Your task to perform on an android device: Open wifi settings Image 0: 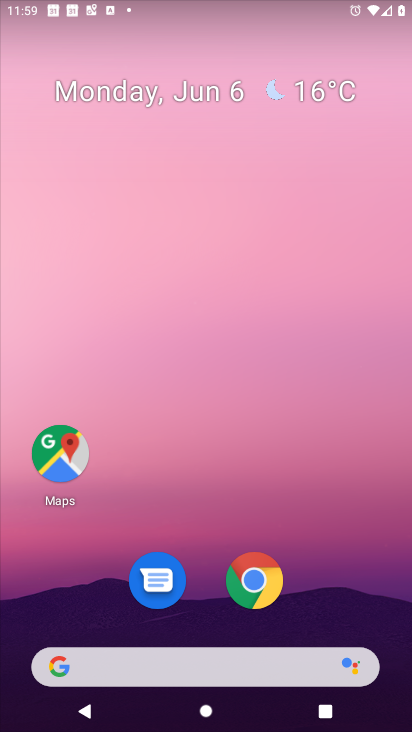
Step 0: drag from (370, 587) to (409, 130)
Your task to perform on an android device: Open wifi settings Image 1: 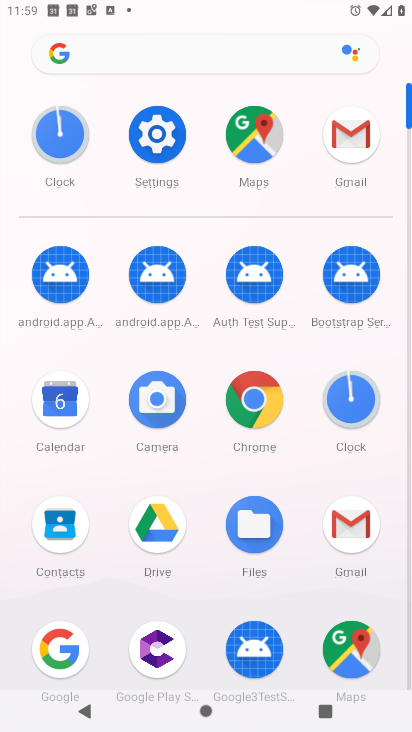
Step 1: click (153, 136)
Your task to perform on an android device: Open wifi settings Image 2: 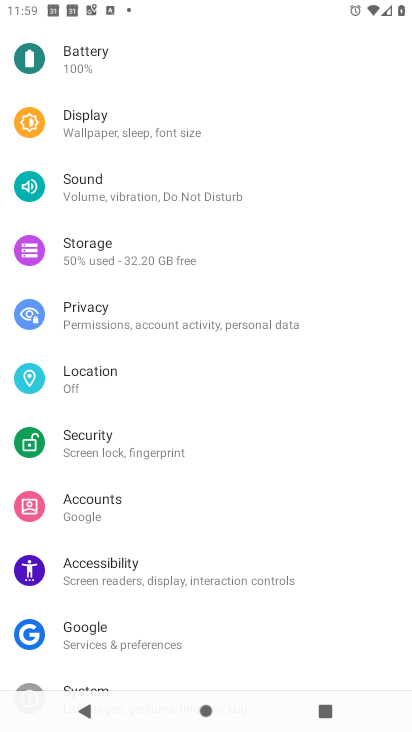
Step 2: drag from (149, 207) to (56, 664)
Your task to perform on an android device: Open wifi settings Image 3: 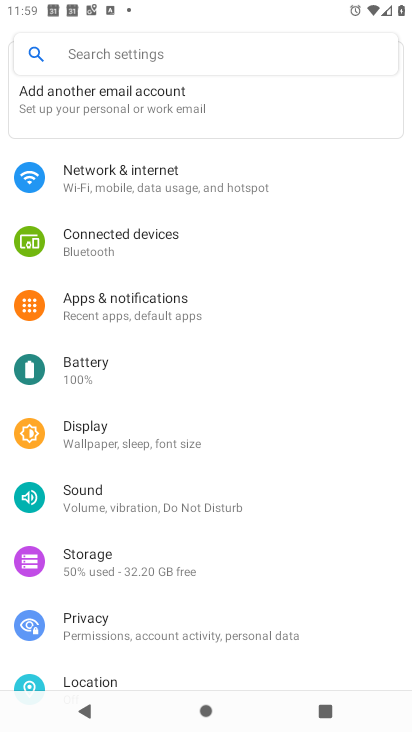
Step 3: drag from (215, 207) to (113, 676)
Your task to perform on an android device: Open wifi settings Image 4: 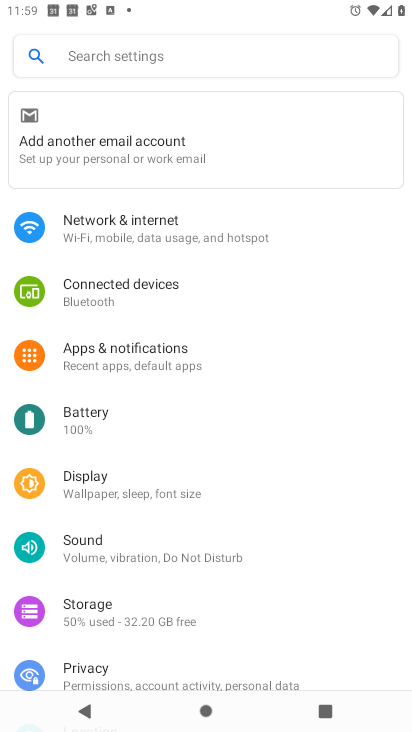
Step 4: click (118, 233)
Your task to perform on an android device: Open wifi settings Image 5: 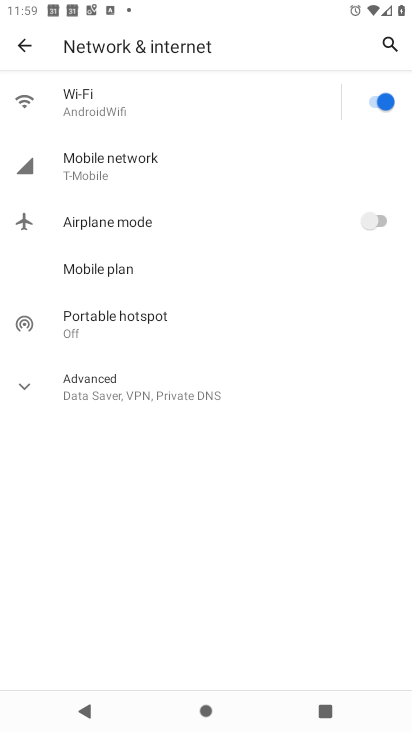
Step 5: click (108, 112)
Your task to perform on an android device: Open wifi settings Image 6: 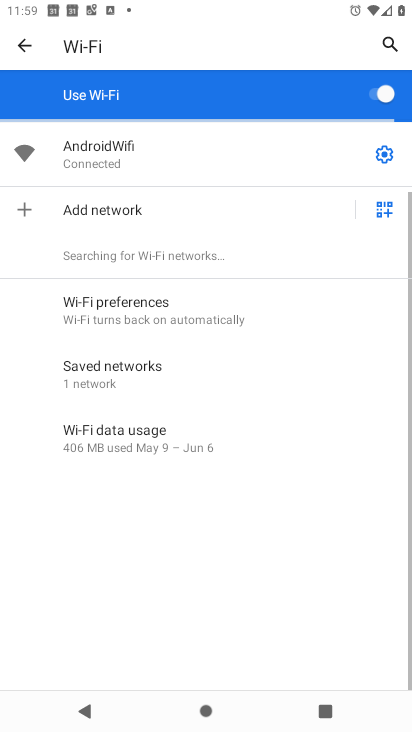
Step 6: task complete